Your task to perform on an android device: Go to location settings Image 0: 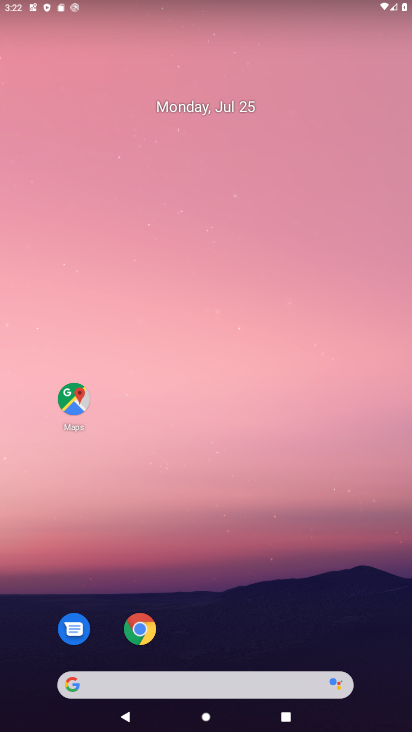
Step 0: drag from (165, 689) to (120, 20)
Your task to perform on an android device: Go to location settings Image 1: 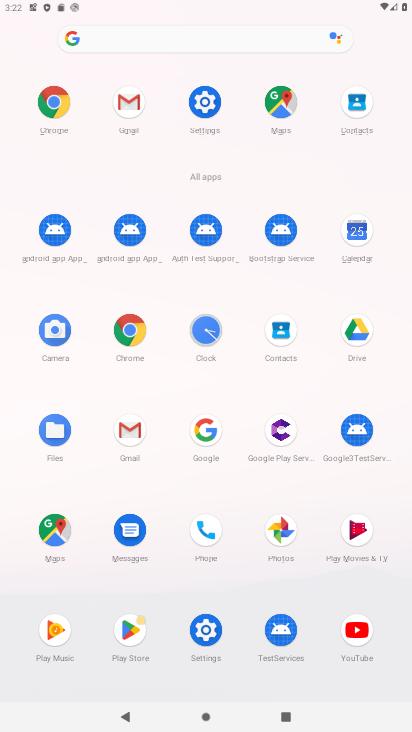
Step 1: click (205, 101)
Your task to perform on an android device: Go to location settings Image 2: 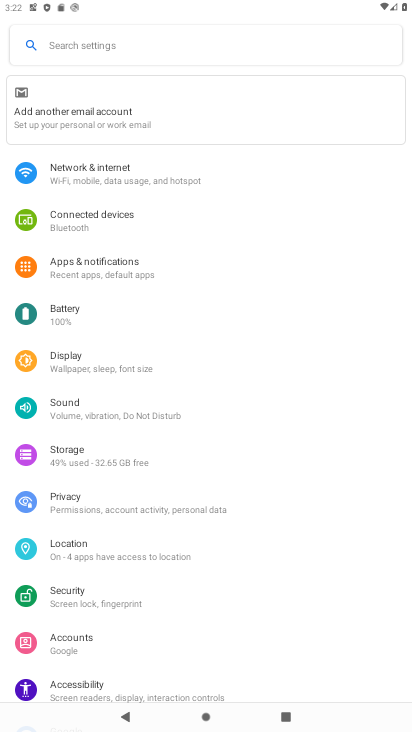
Step 2: click (81, 547)
Your task to perform on an android device: Go to location settings Image 3: 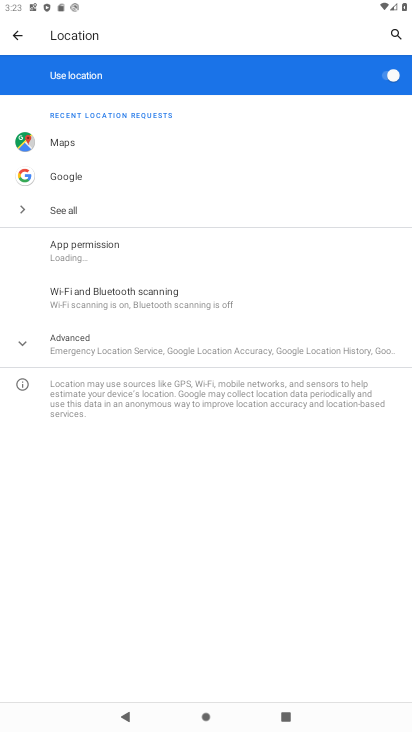
Step 3: task complete